Your task to perform on an android device: turn on airplane mode Image 0: 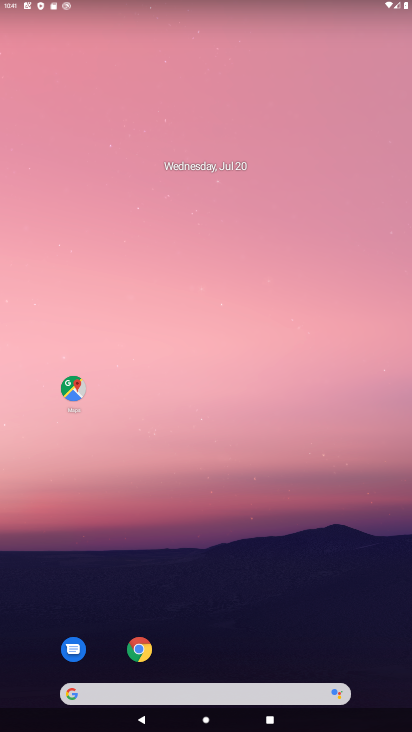
Step 0: drag from (265, 642) to (247, 123)
Your task to perform on an android device: turn on airplane mode Image 1: 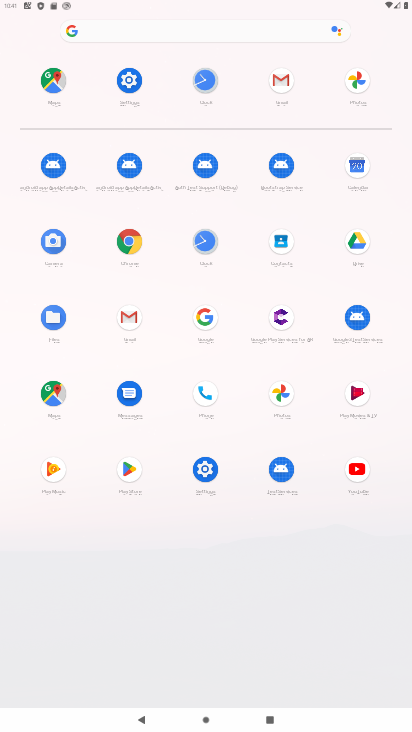
Step 1: click (124, 86)
Your task to perform on an android device: turn on airplane mode Image 2: 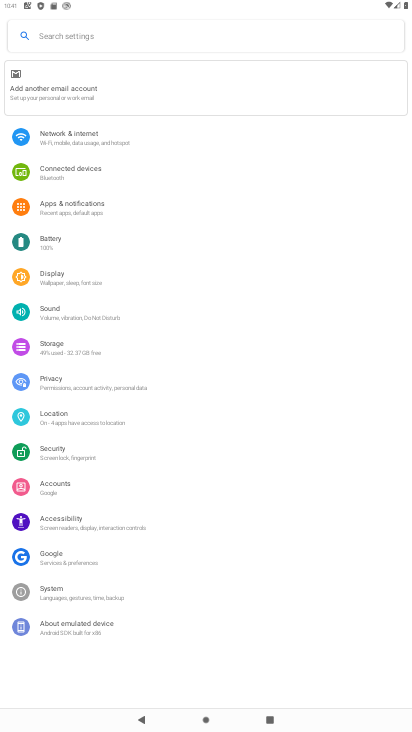
Step 2: click (58, 134)
Your task to perform on an android device: turn on airplane mode Image 3: 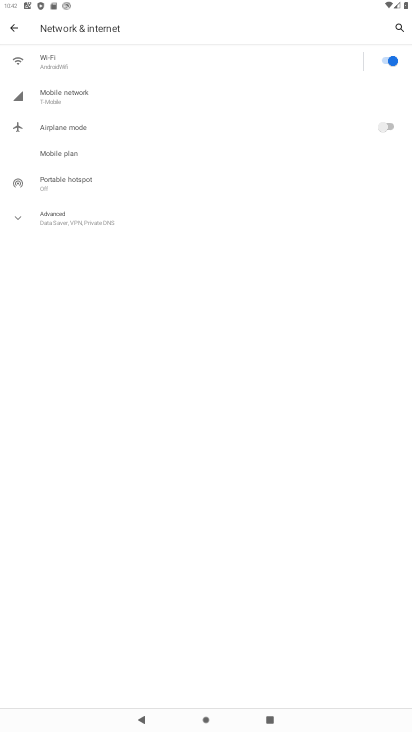
Step 3: task complete